Your task to perform on an android device: Open accessibility settings Image 0: 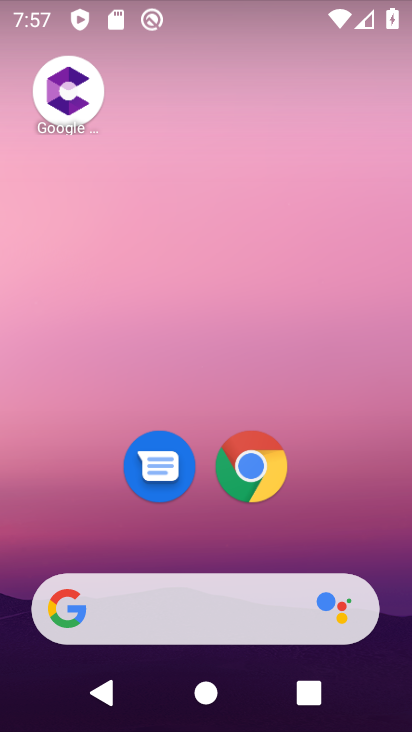
Step 0: drag from (220, 569) to (198, 2)
Your task to perform on an android device: Open accessibility settings Image 1: 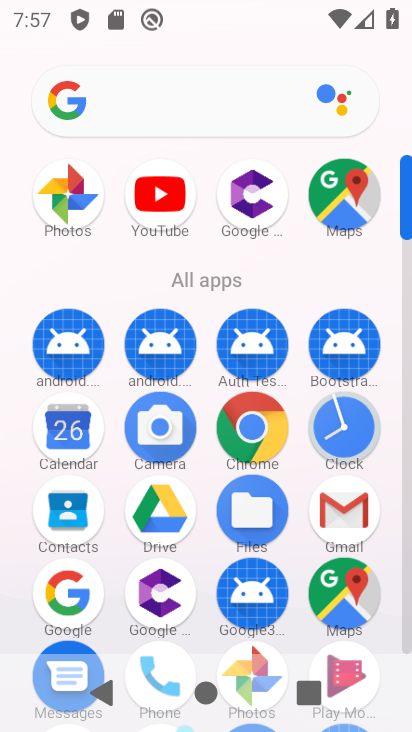
Step 1: drag from (114, 559) to (100, 121)
Your task to perform on an android device: Open accessibility settings Image 2: 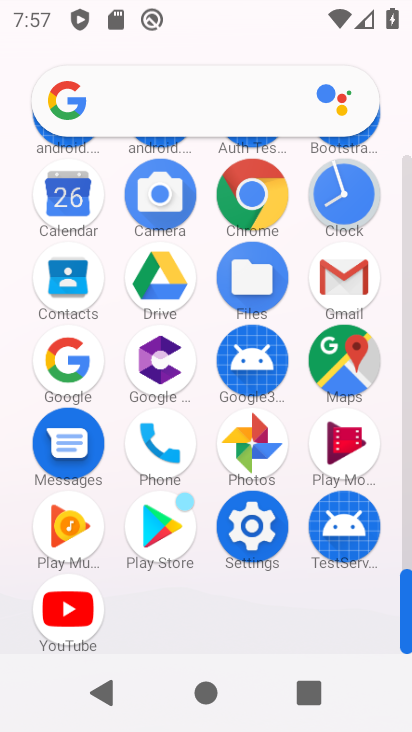
Step 2: click (241, 546)
Your task to perform on an android device: Open accessibility settings Image 3: 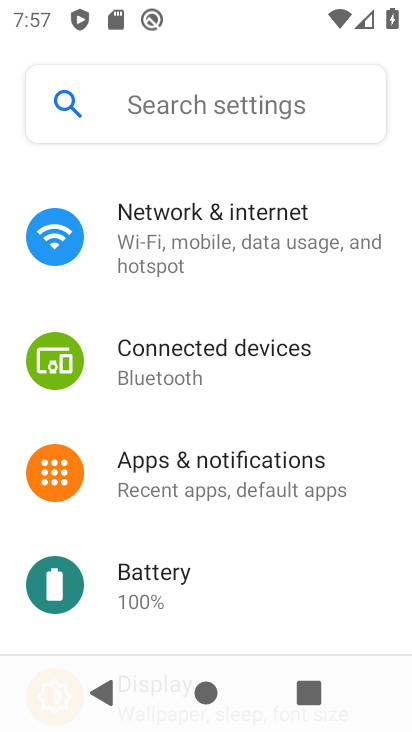
Step 3: drag from (240, 527) to (189, 77)
Your task to perform on an android device: Open accessibility settings Image 4: 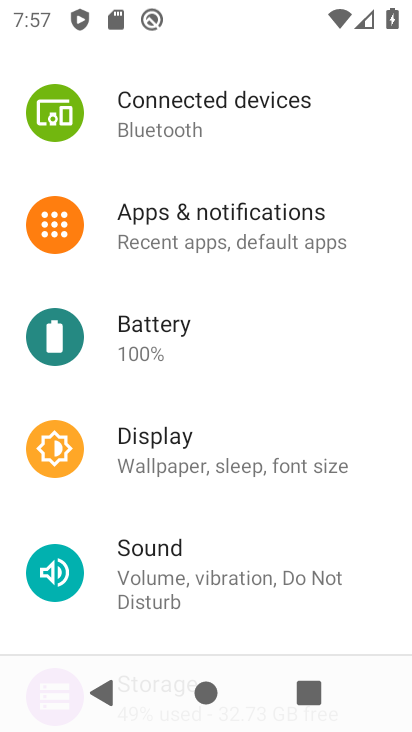
Step 4: drag from (300, 561) to (240, 173)
Your task to perform on an android device: Open accessibility settings Image 5: 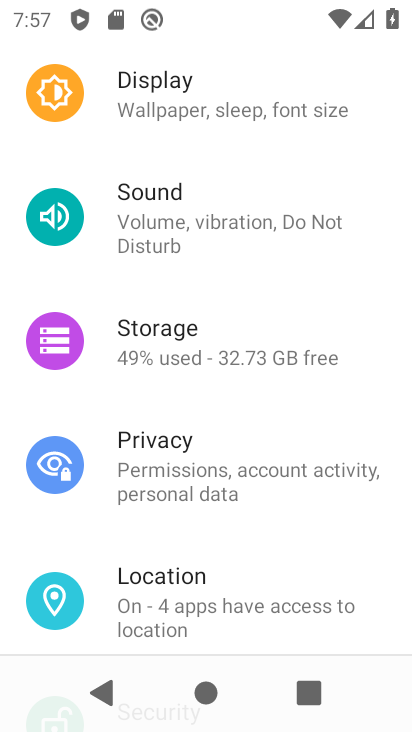
Step 5: drag from (275, 542) to (223, 109)
Your task to perform on an android device: Open accessibility settings Image 6: 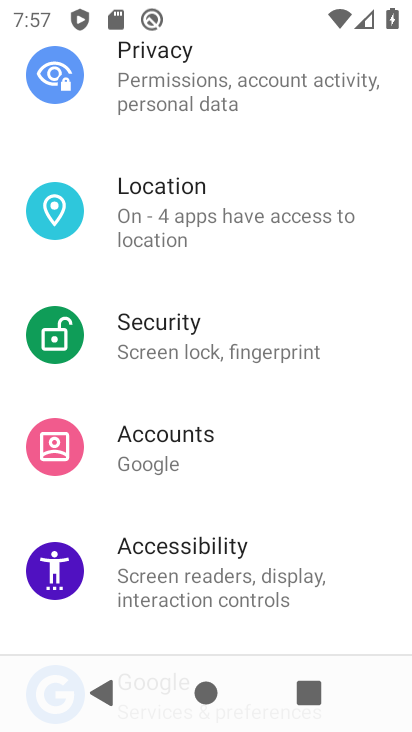
Step 6: click (209, 585)
Your task to perform on an android device: Open accessibility settings Image 7: 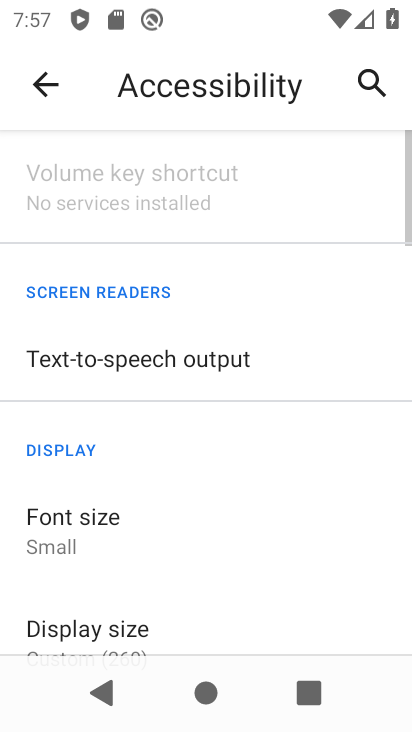
Step 7: task complete